Your task to perform on an android device: check data usage Image 0: 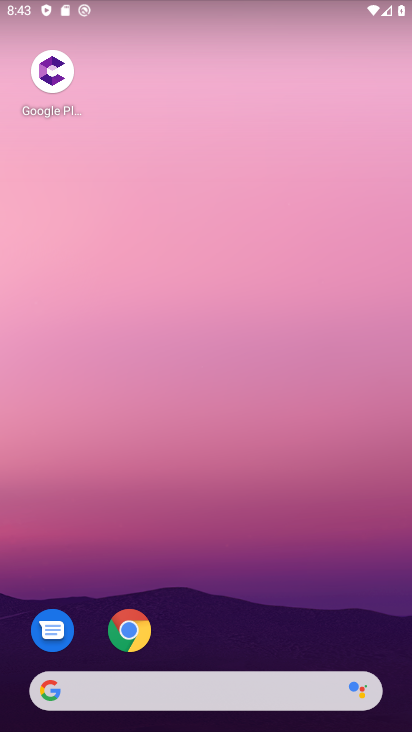
Step 0: drag from (370, 630) to (357, 160)
Your task to perform on an android device: check data usage Image 1: 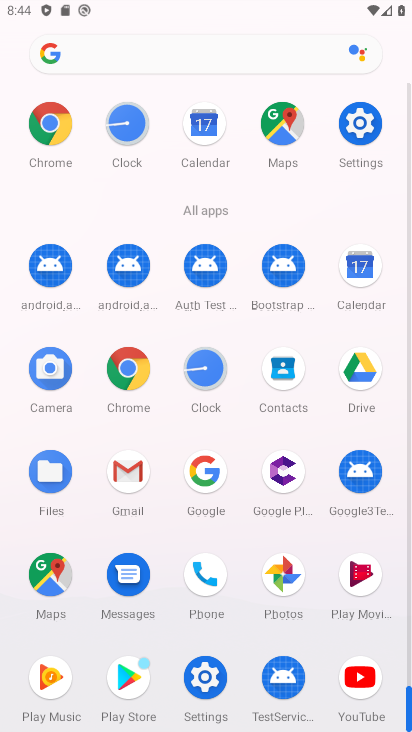
Step 1: click (358, 139)
Your task to perform on an android device: check data usage Image 2: 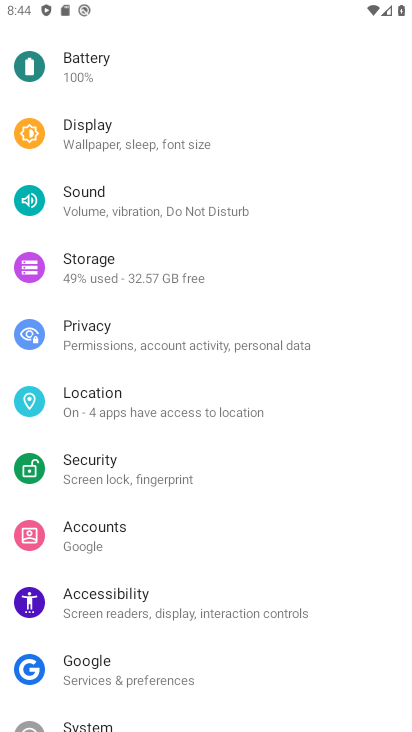
Step 2: drag from (359, 635) to (379, 417)
Your task to perform on an android device: check data usage Image 3: 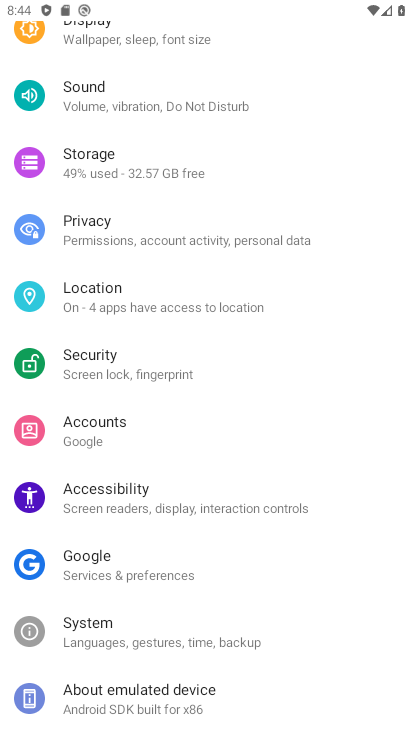
Step 3: drag from (331, 642) to (349, 465)
Your task to perform on an android device: check data usage Image 4: 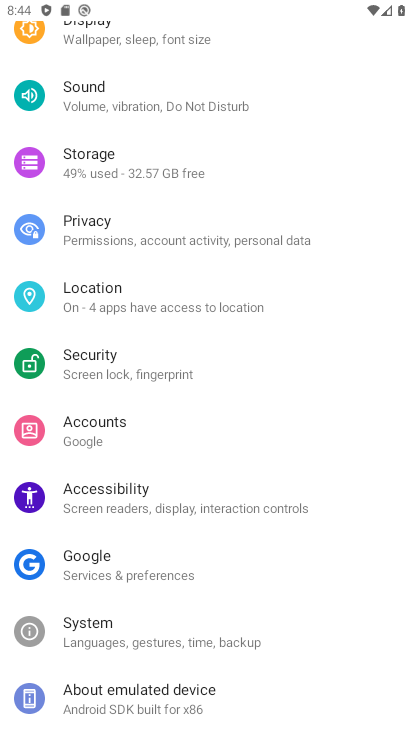
Step 4: drag from (371, 318) to (361, 510)
Your task to perform on an android device: check data usage Image 5: 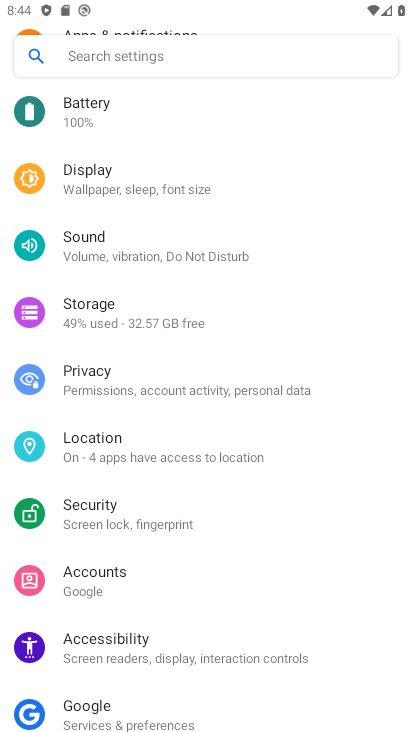
Step 5: drag from (352, 296) to (331, 484)
Your task to perform on an android device: check data usage Image 6: 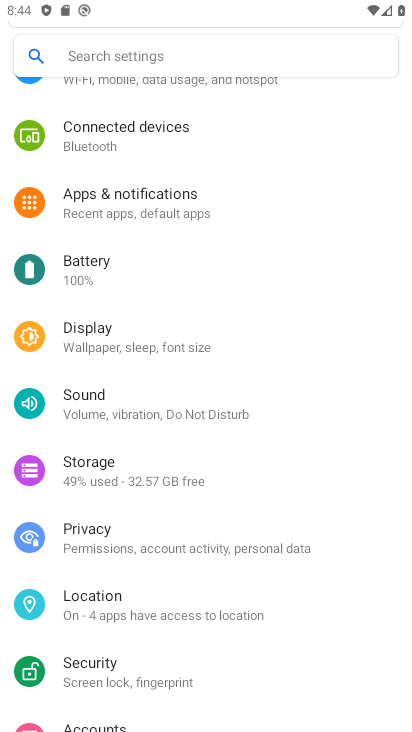
Step 6: drag from (338, 307) to (316, 469)
Your task to perform on an android device: check data usage Image 7: 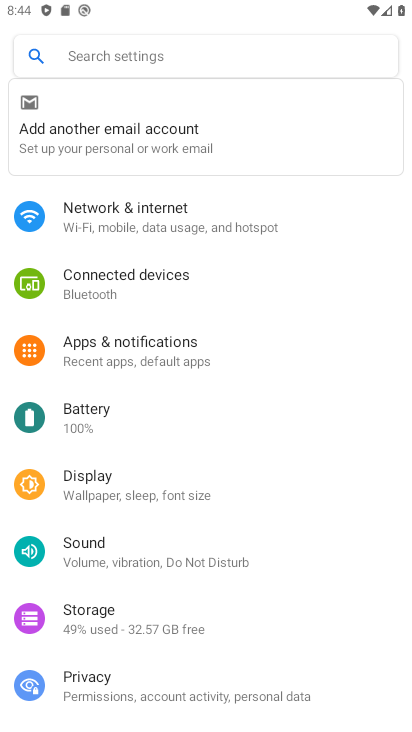
Step 7: drag from (338, 257) to (331, 447)
Your task to perform on an android device: check data usage Image 8: 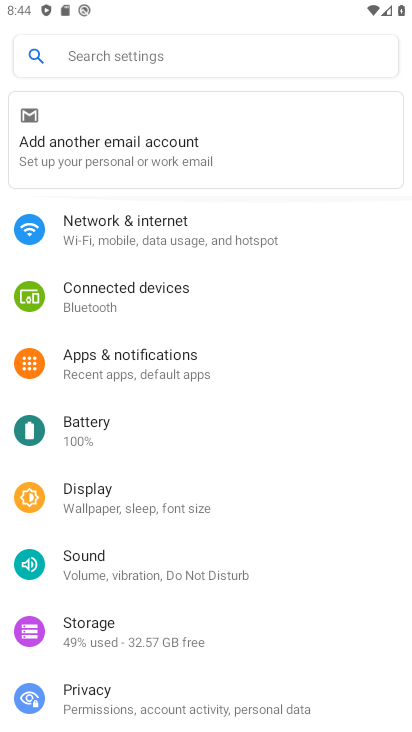
Step 8: drag from (343, 590) to (346, 519)
Your task to perform on an android device: check data usage Image 9: 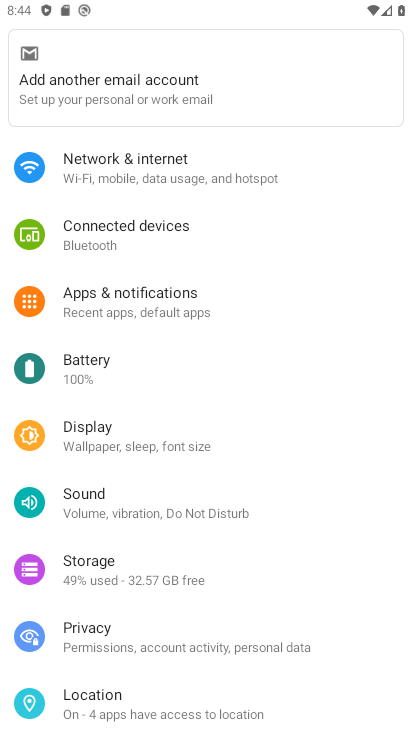
Step 9: click (189, 172)
Your task to perform on an android device: check data usage Image 10: 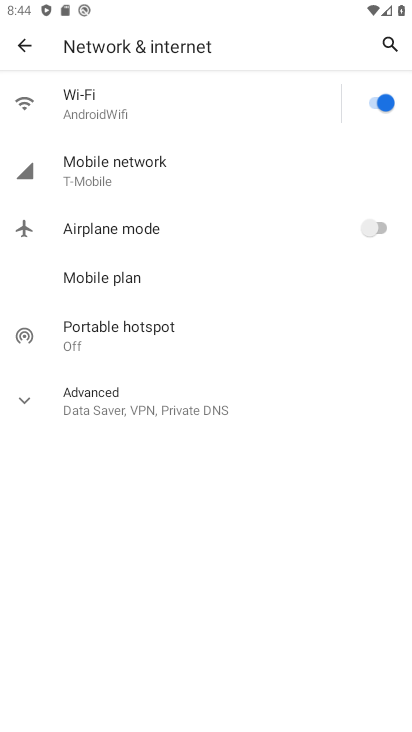
Step 10: click (239, 170)
Your task to perform on an android device: check data usage Image 11: 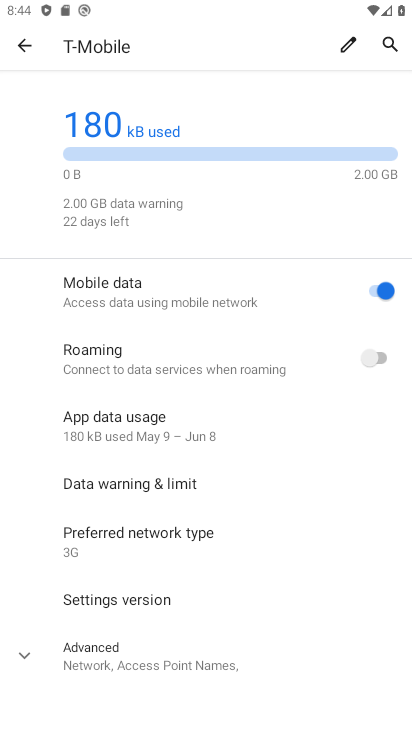
Step 11: click (186, 437)
Your task to perform on an android device: check data usage Image 12: 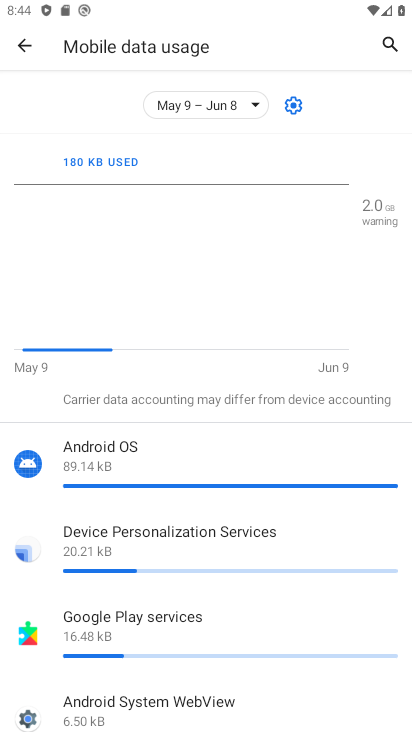
Step 12: task complete